Your task to perform on an android device: Go to location settings Image 0: 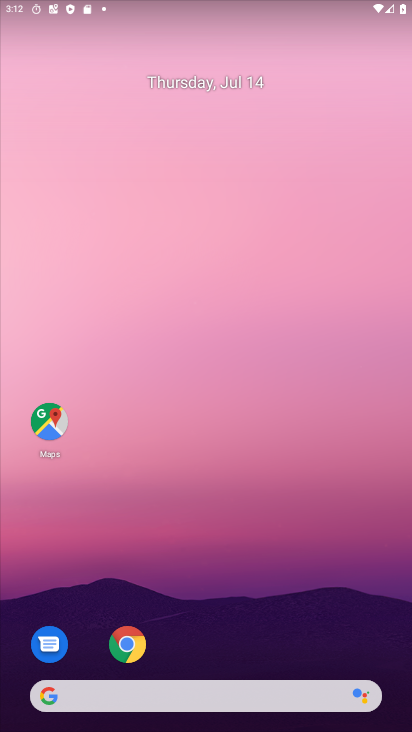
Step 0: drag from (11, 705) to (309, 68)
Your task to perform on an android device: Go to location settings Image 1: 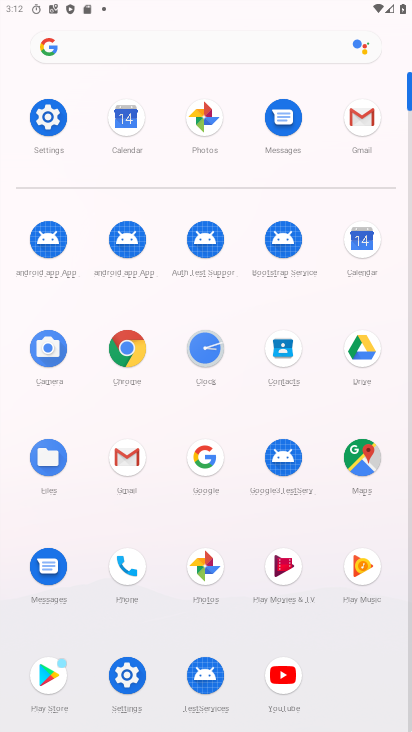
Step 1: click (115, 679)
Your task to perform on an android device: Go to location settings Image 2: 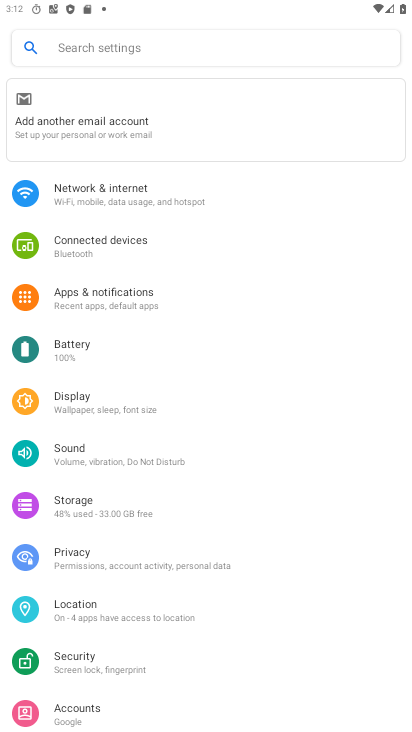
Step 2: click (115, 613)
Your task to perform on an android device: Go to location settings Image 3: 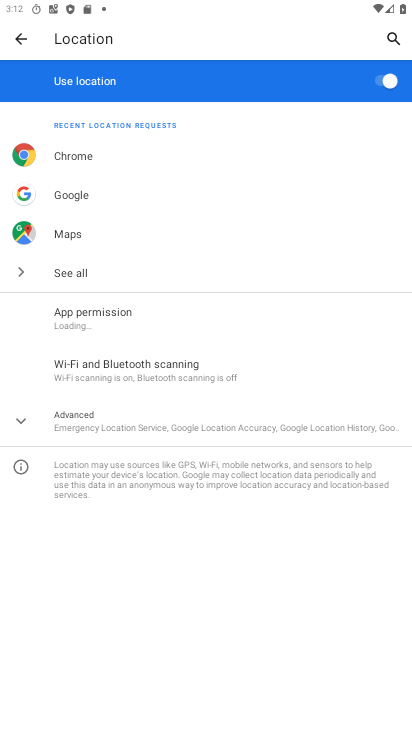
Step 3: click (110, 423)
Your task to perform on an android device: Go to location settings Image 4: 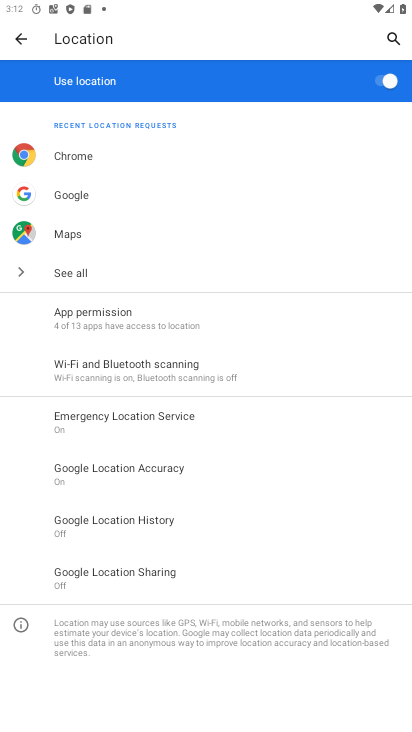
Step 4: task complete